Your task to perform on an android device: Open Amazon Image 0: 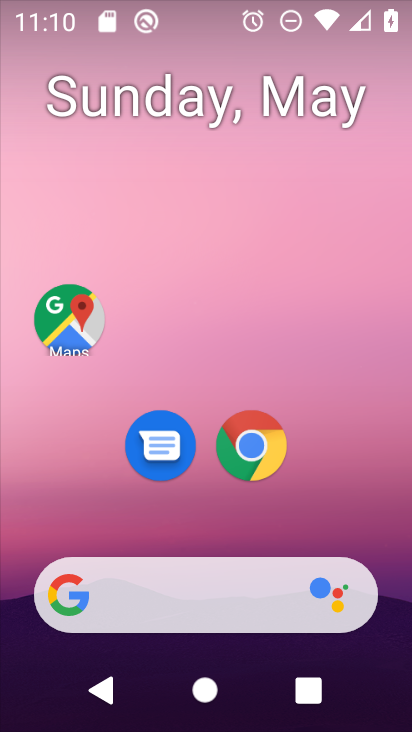
Step 0: drag from (267, 593) to (267, 163)
Your task to perform on an android device: Open Amazon Image 1: 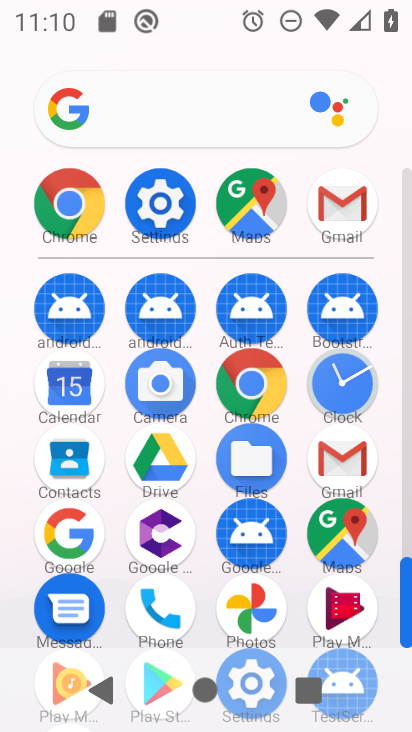
Step 1: click (254, 396)
Your task to perform on an android device: Open Amazon Image 2: 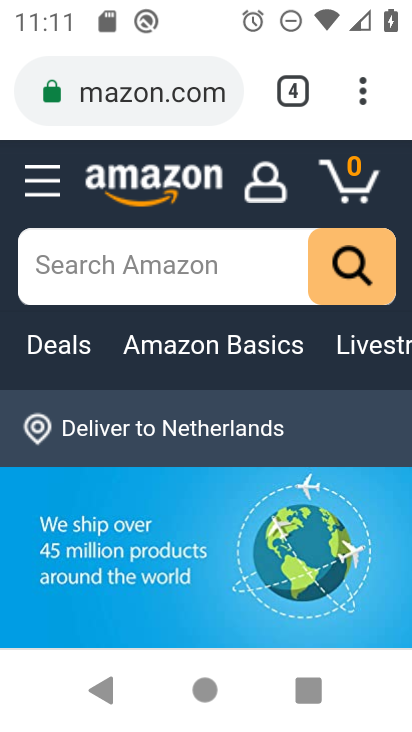
Step 2: task complete